Your task to perform on an android device: Open the calendar app, open the side menu, and click the "Day" option Image 0: 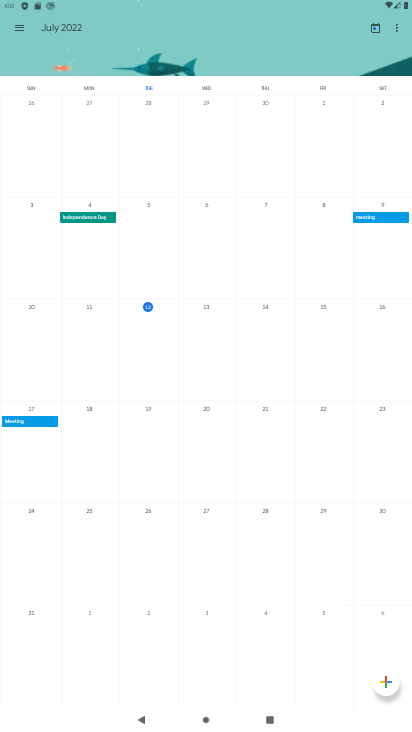
Step 0: click (20, 19)
Your task to perform on an android device: Open the calendar app, open the side menu, and click the "Day" option Image 1: 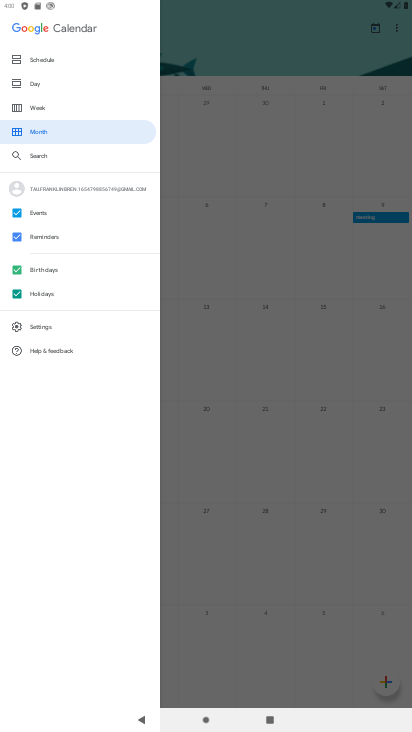
Step 1: click (79, 84)
Your task to perform on an android device: Open the calendar app, open the side menu, and click the "Day" option Image 2: 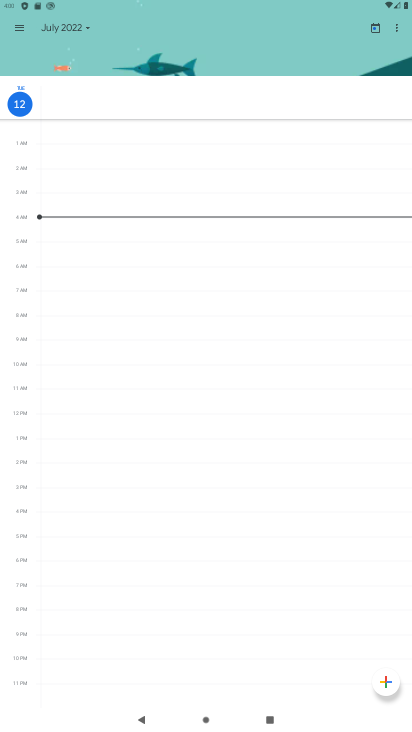
Step 2: task complete